Your task to perform on an android device: open app "Yahoo Mail" (install if not already installed) Image 0: 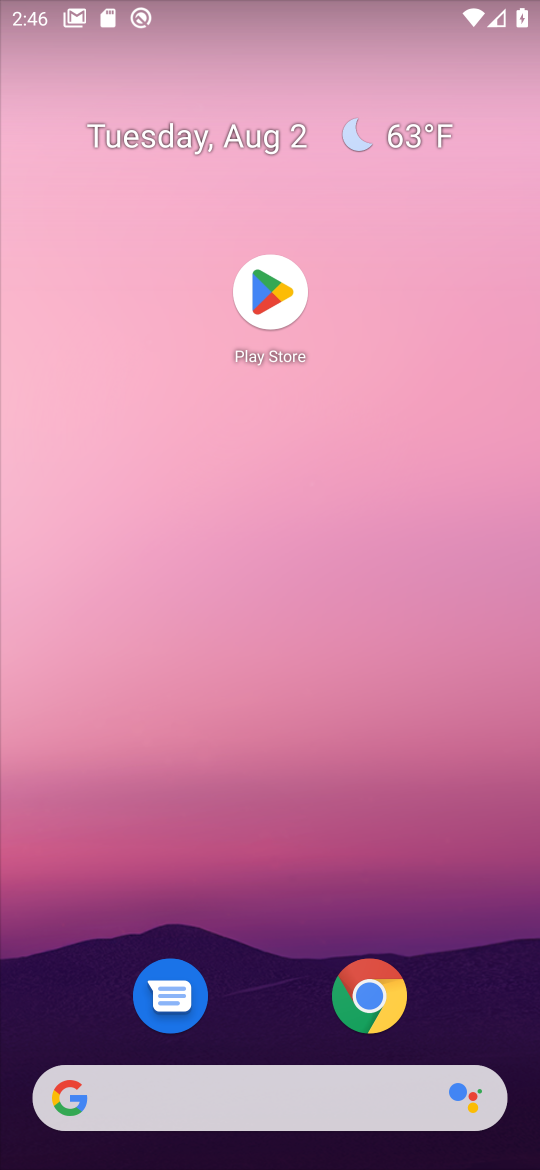
Step 0: click (272, 274)
Your task to perform on an android device: open app "Yahoo Mail" (install if not already installed) Image 1: 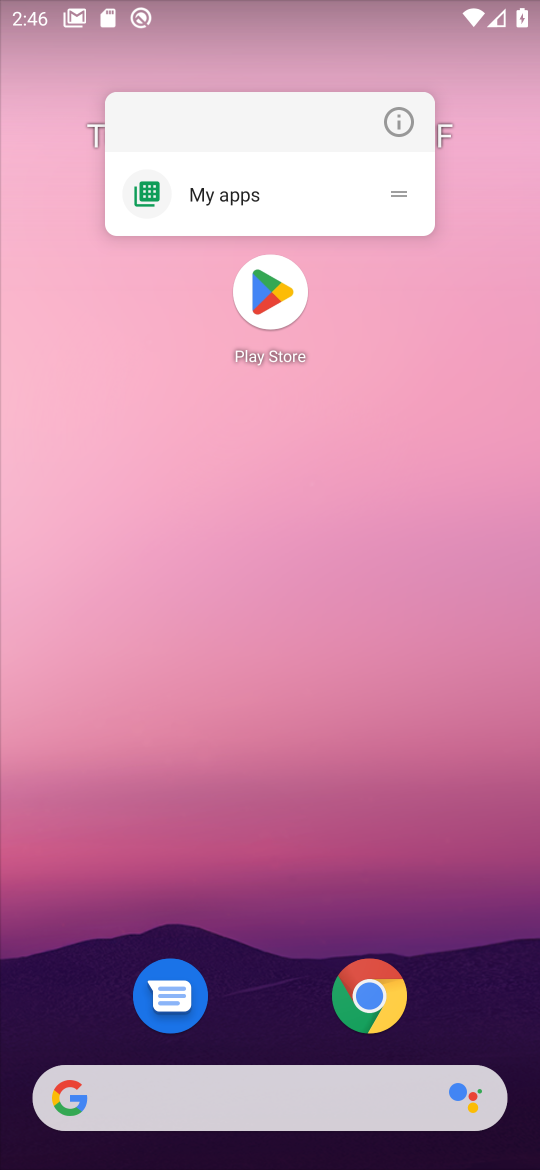
Step 1: click (263, 295)
Your task to perform on an android device: open app "Yahoo Mail" (install if not already installed) Image 2: 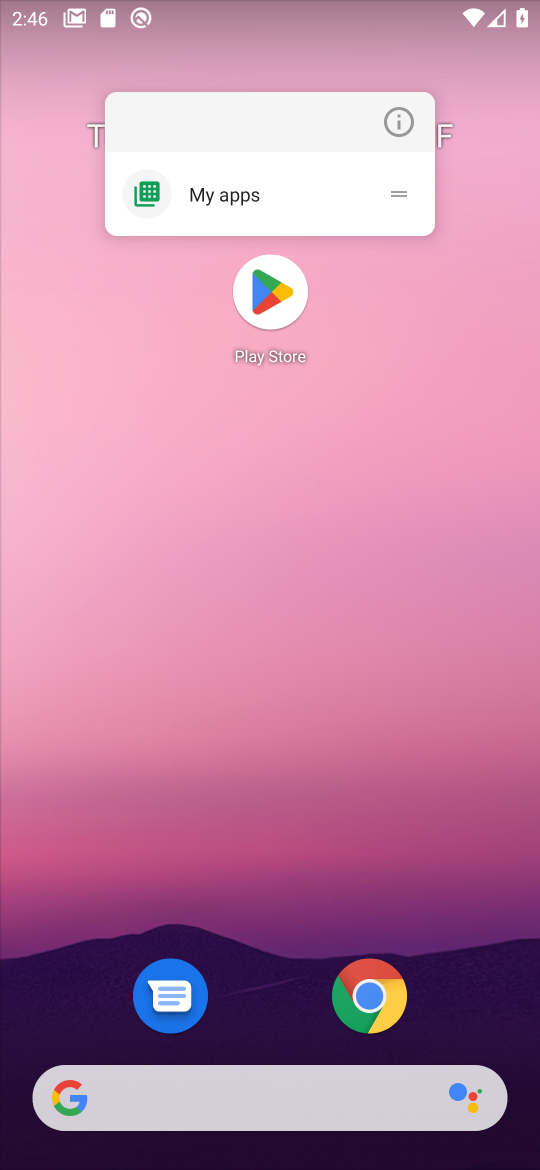
Step 2: click (266, 298)
Your task to perform on an android device: open app "Yahoo Mail" (install if not already installed) Image 3: 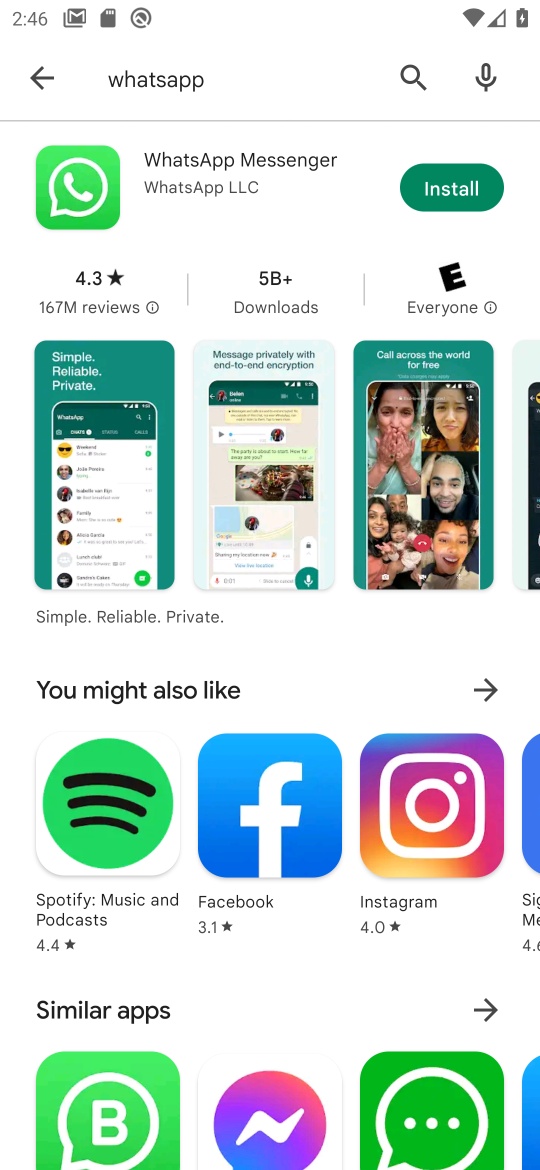
Step 3: click (414, 80)
Your task to perform on an android device: open app "Yahoo Mail" (install if not already installed) Image 4: 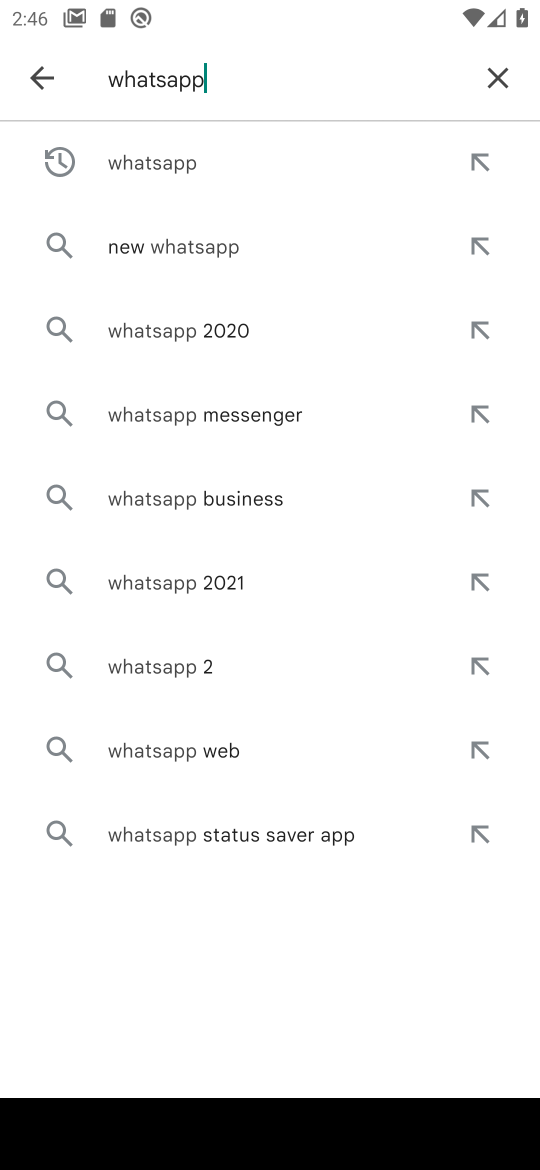
Step 4: click (503, 79)
Your task to perform on an android device: open app "Yahoo Mail" (install if not already installed) Image 5: 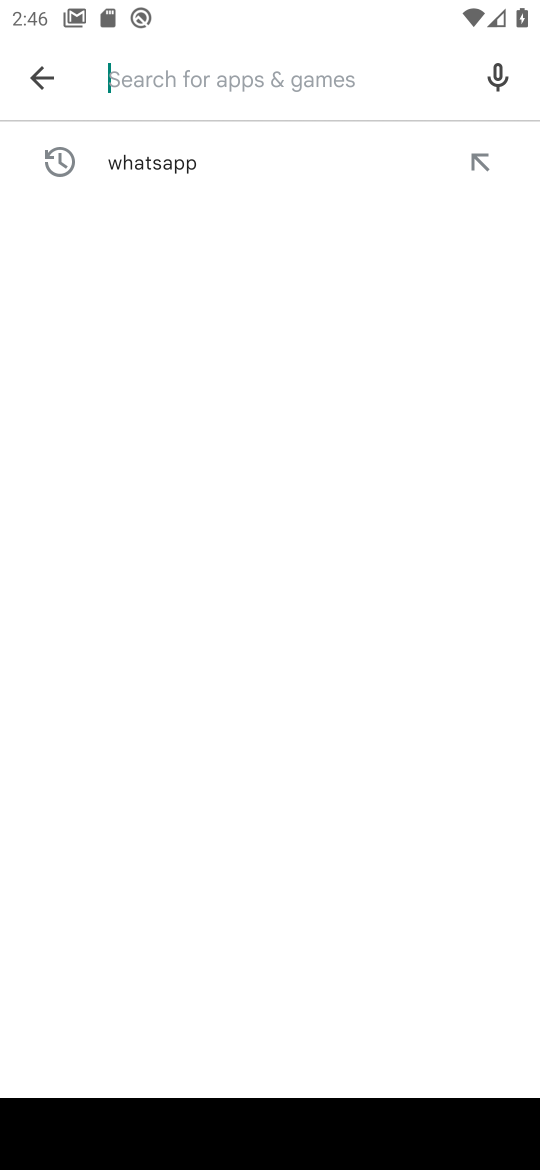
Step 5: type "yahoo mail"
Your task to perform on an android device: open app "Yahoo Mail" (install if not already installed) Image 6: 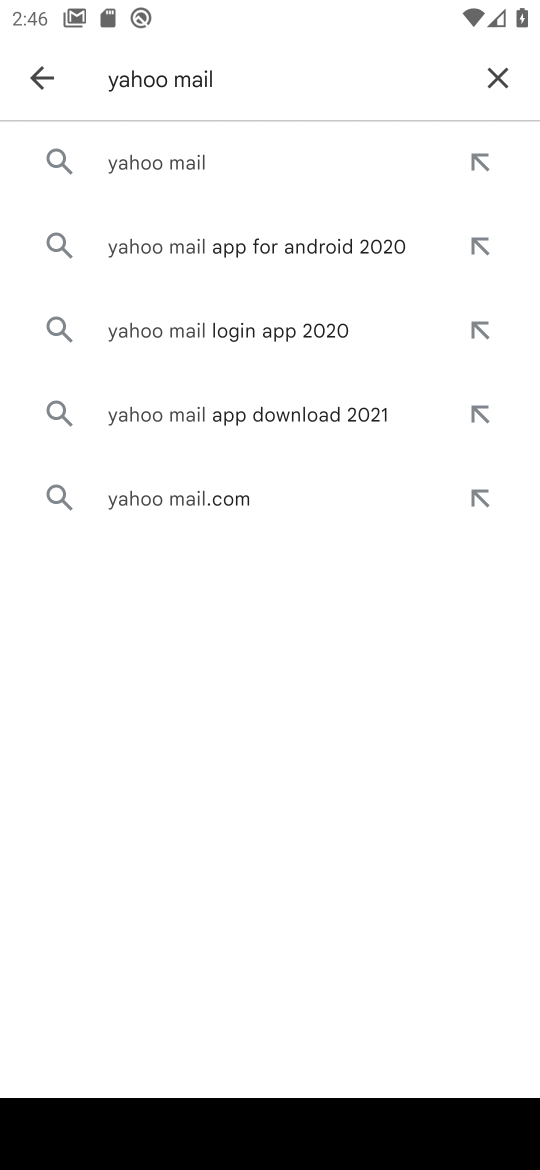
Step 6: click (165, 167)
Your task to perform on an android device: open app "Yahoo Mail" (install if not already installed) Image 7: 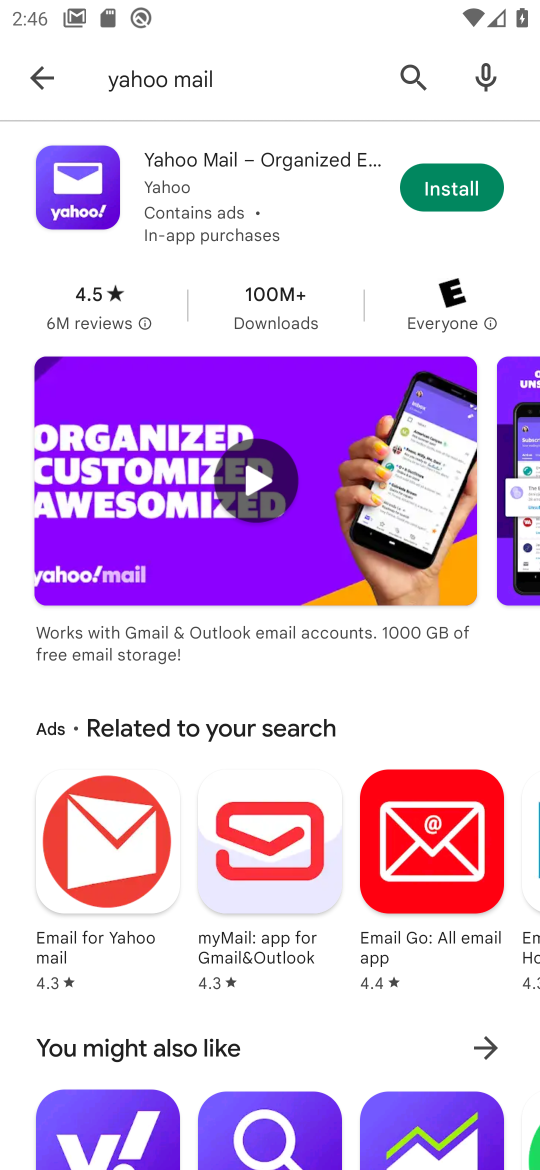
Step 7: click (447, 203)
Your task to perform on an android device: open app "Yahoo Mail" (install if not already installed) Image 8: 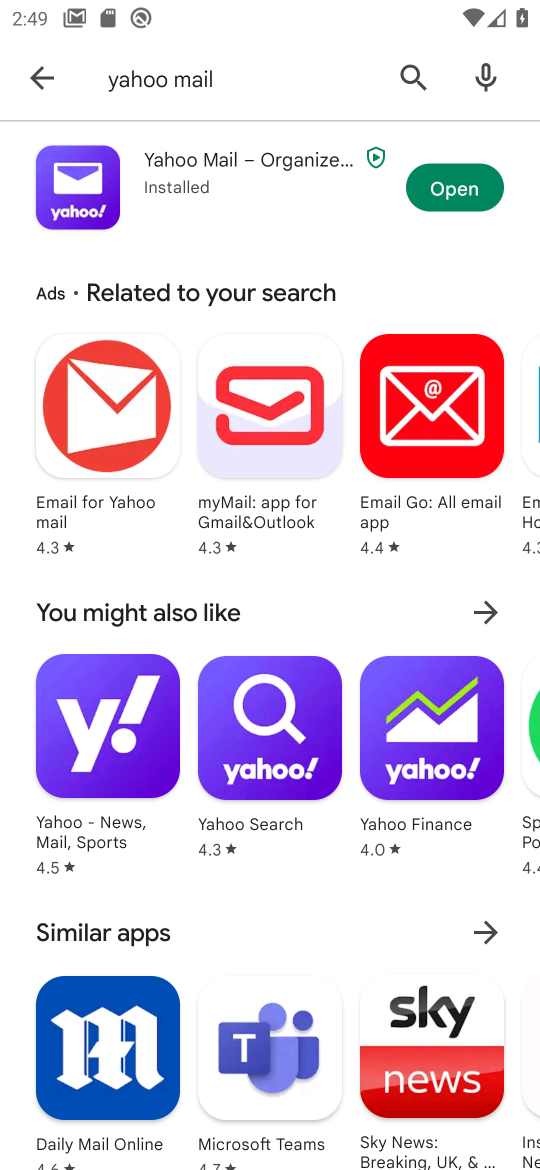
Step 8: task complete